Your task to perform on an android device: check android version Image 0: 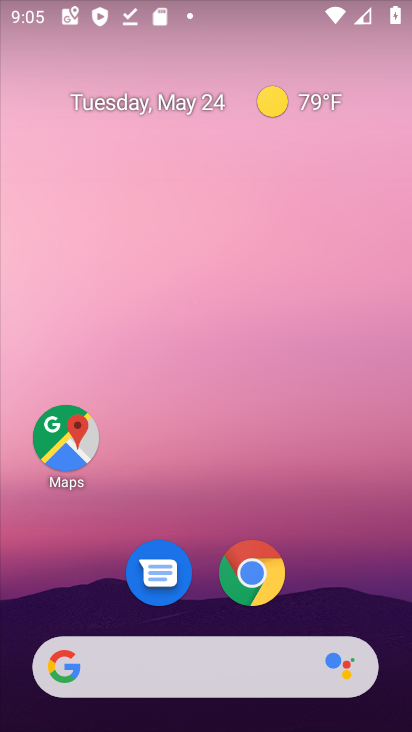
Step 0: drag from (294, 698) to (141, 142)
Your task to perform on an android device: check android version Image 1: 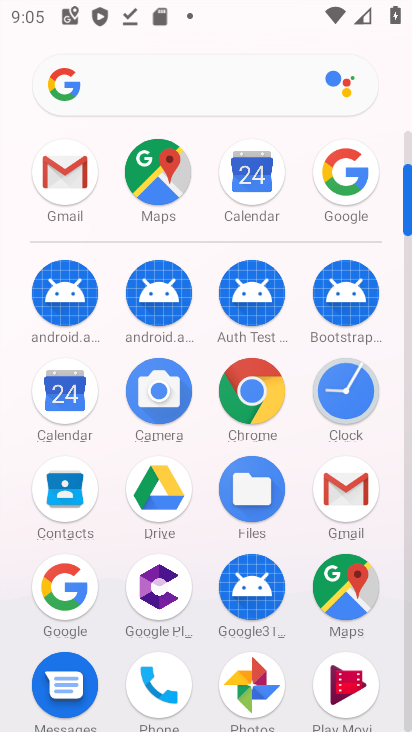
Step 1: drag from (193, 521) to (187, 109)
Your task to perform on an android device: check android version Image 2: 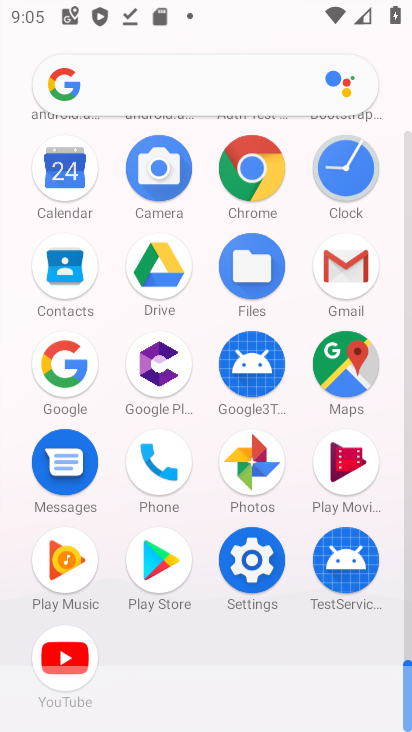
Step 2: drag from (227, 483) to (218, 107)
Your task to perform on an android device: check android version Image 3: 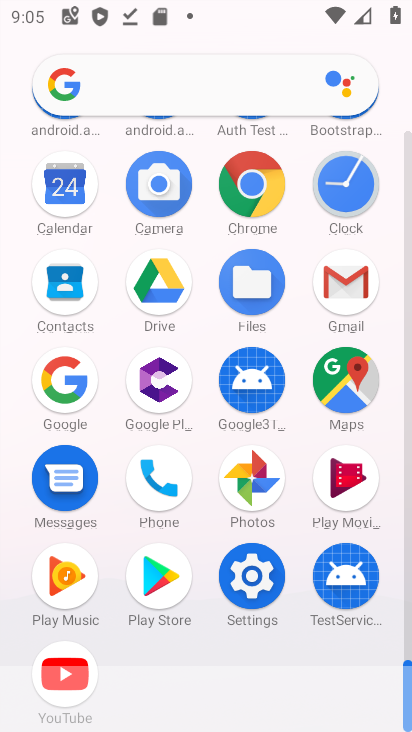
Step 3: click (255, 563)
Your task to perform on an android device: check android version Image 4: 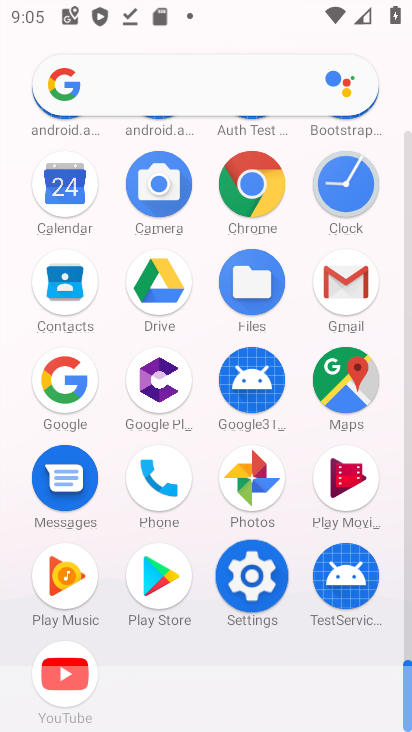
Step 4: click (255, 563)
Your task to perform on an android device: check android version Image 5: 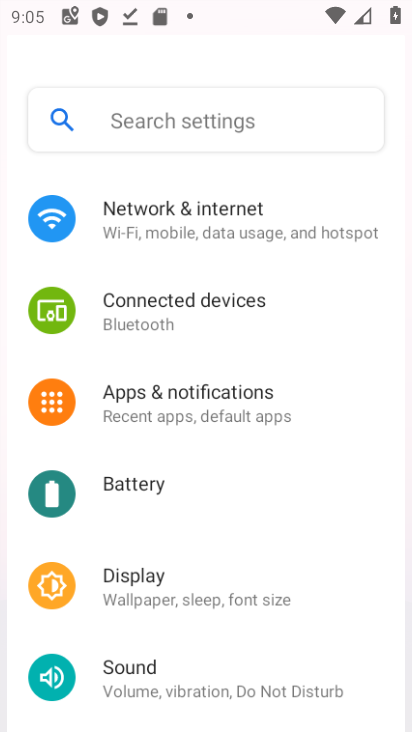
Step 5: click (254, 562)
Your task to perform on an android device: check android version Image 6: 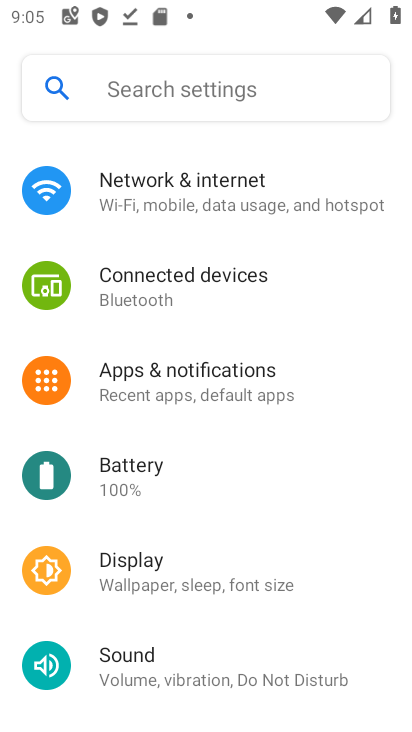
Step 6: click (254, 562)
Your task to perform on an android device: check android version Image 7: 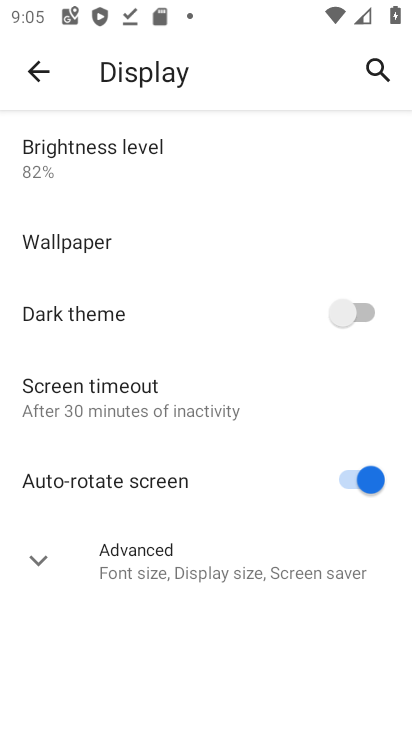
Step 7: click (38, 63)
Your task to perform on an android device: check android version Image 8: 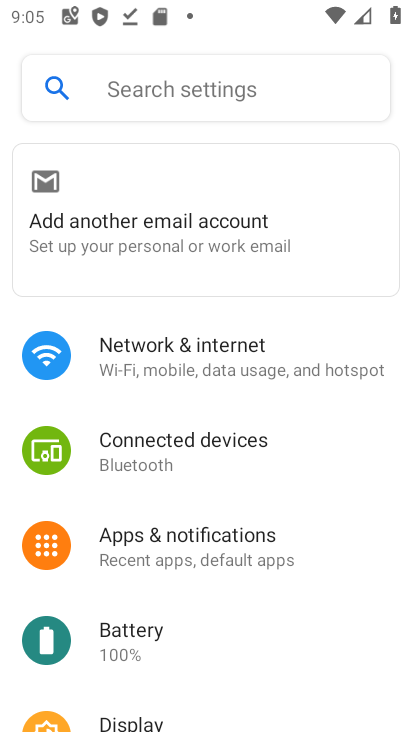
Step 8: drag from (222, 590) to (330, 29)
Your task to perform on an android device: check android version Image 9: 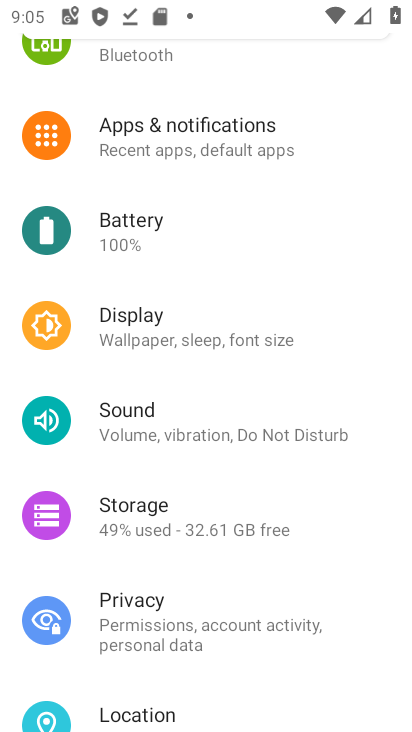
Step 9: drag from (366, 401) to (343, 92)
Your task to perform on an android device: check android version Image 10: 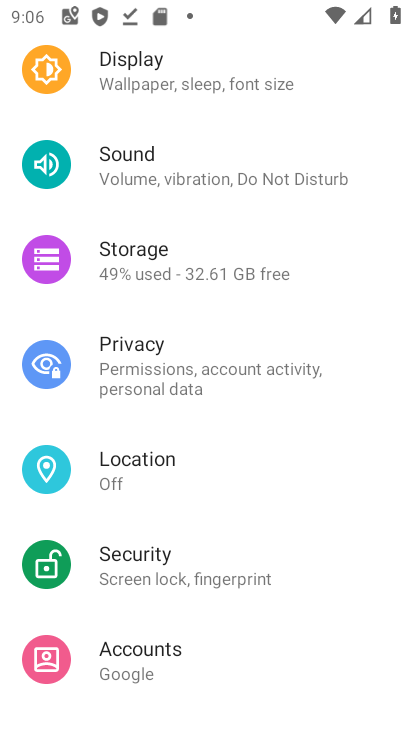
Step 10: drag from (288, 551) to (403, 556)
Your task to perform on an android device: check android version Image 11: 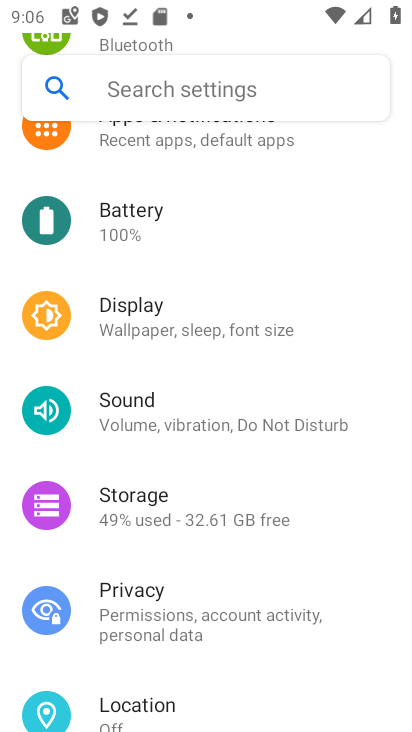
Step 11: drag from (147, 609) to (107, 173)
Your task to perform on an android device: check android version Image 12: 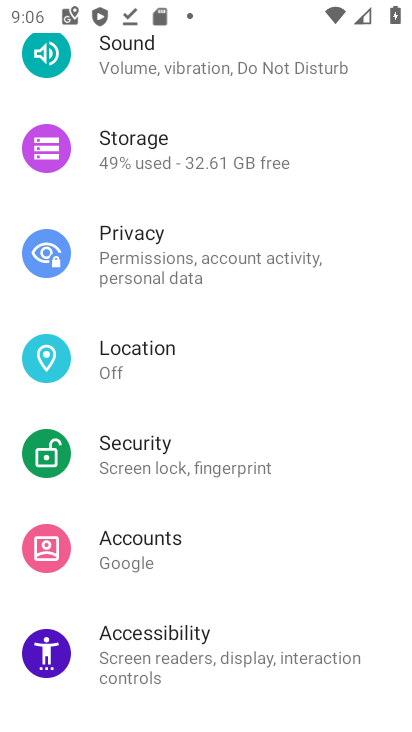
Step 12: drag from (176, 543) to (162, 121)
Your task to perform on an android device: check android version Image 13: 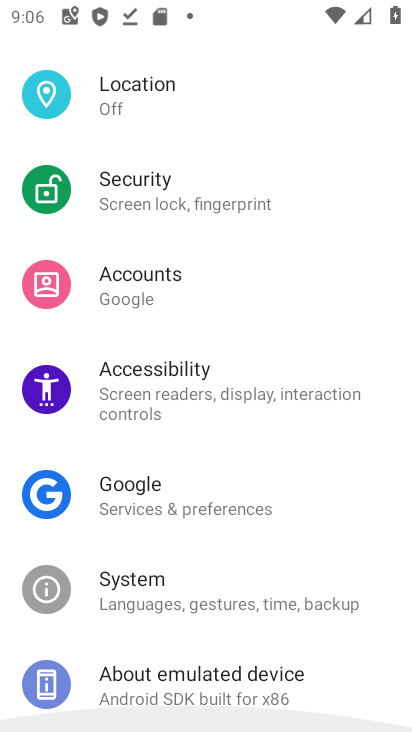
Step 13: drag from (229, 456) to (261, 121)
Your task to perform on an android device: check android version Image 14: 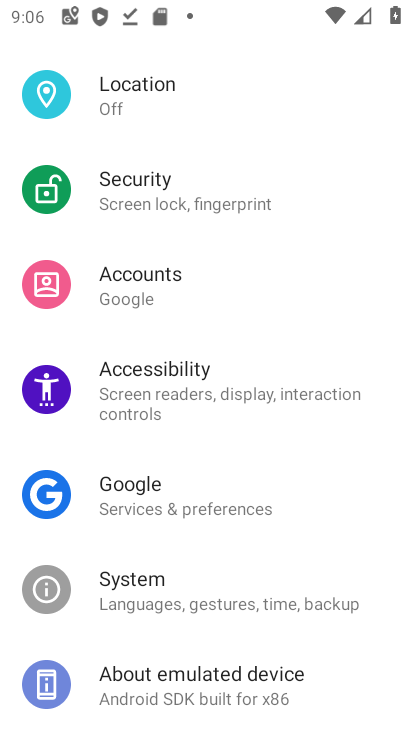
Step 14: click (198, 691)
Your task to perform on an android device: check android version Image 15: 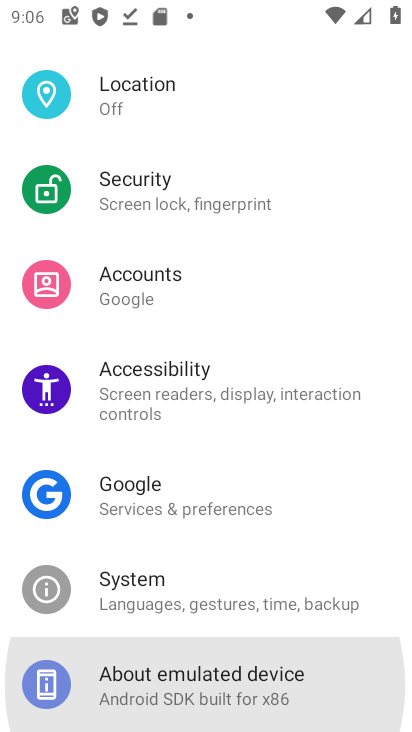
Step 15: click (198, 691)
Your task to perform on an android device: check android version Image 16: 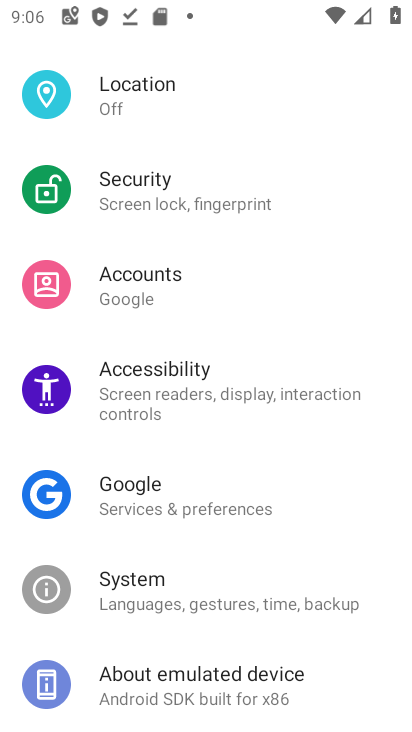
Step 16: click (197, 690)
Your task to perform on an android device: check android version Image 17: 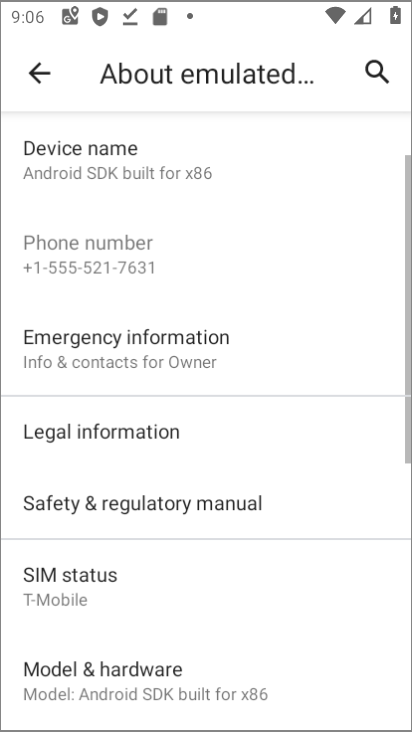
Step 17: click (197, 690)
Your task to perform on an android device: check android version Image 18: 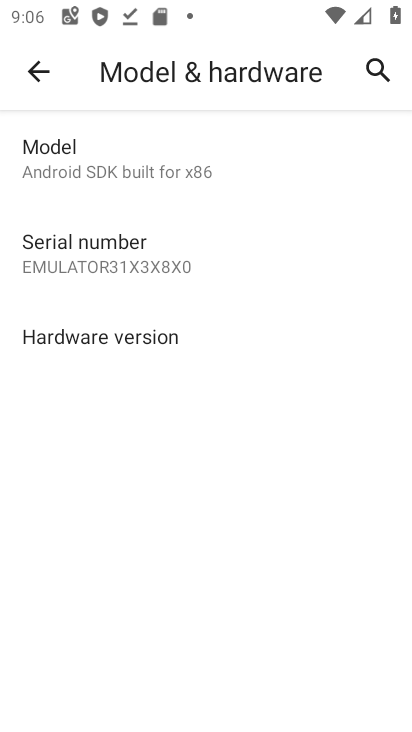
Step 18: click (35, 60)
Your task to perform on an android device: check android version Image 19: 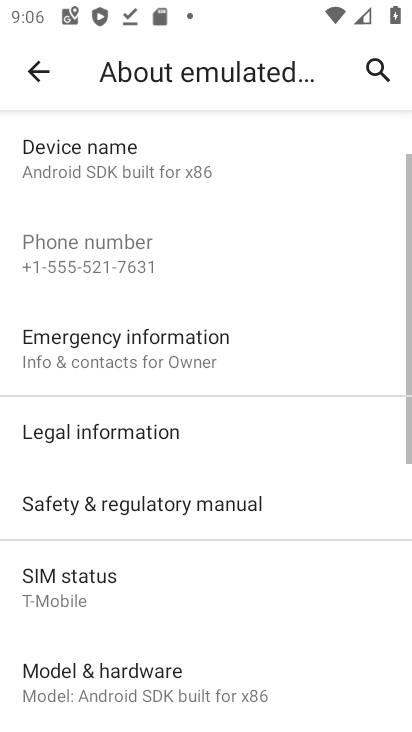
Step 19: task complete